Your task to perform on an android device: open app "Flipkart Online Shopping App" (install if not already installed) and go to login screen Image 0: 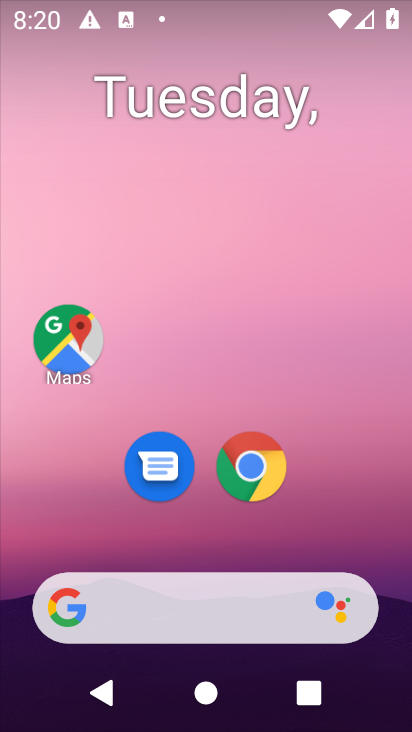
Step 0: drag from (186, 554) to (292, 11)
Your task to perform on an android device: open app "Flipkart Online Shopping App" (install if not already installed) and go to login screen Image 1: 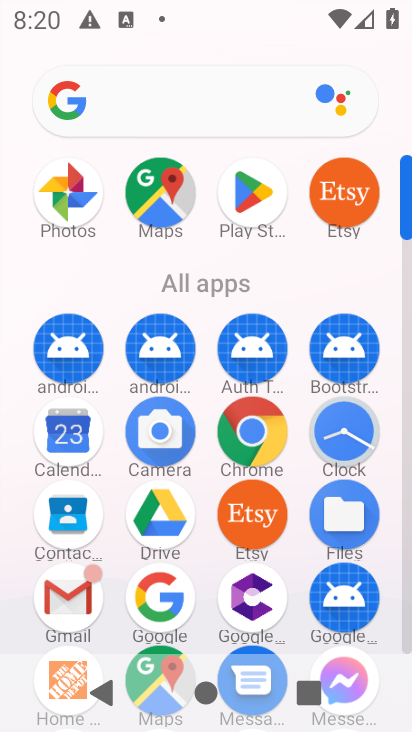
Step 1: click (272, 201)
Your task to perform on an android device: open app "Flipkart Online Shopping App" (install if not already installed) and go to login screen Image 2: 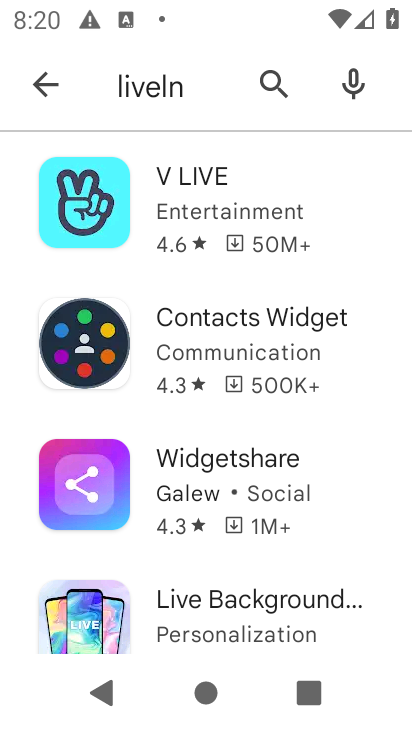
Step 2: click (277, 86)
Your task to perform on an android device: open app "Flipkart Online Shopping App" (install if not already installed) and go to login screen Image 3: 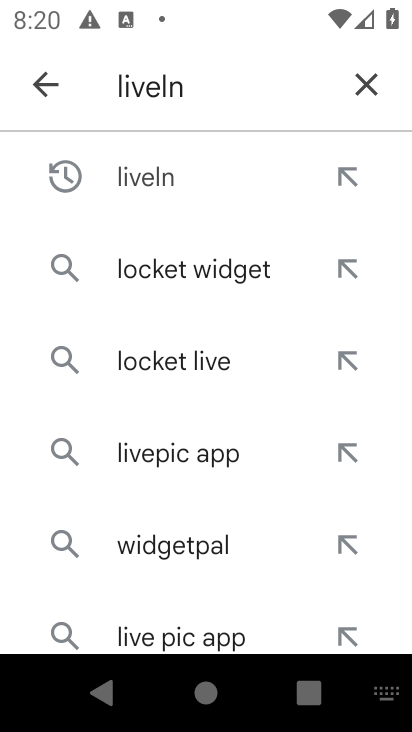
Step 3: click (362, 84)
Your task to perform on an android device: open app "Flipkart Online Shopping App" (install if not already installed) and go to login screen Image 4: 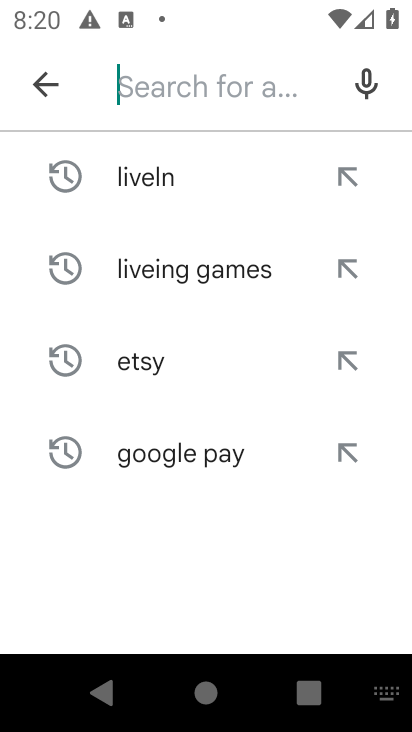
Step 4: click (108, 79)
Your task to perform on an android device: open app "Flipkart Online Shopping App" (install if not already installed) and go to login screen Image 5: 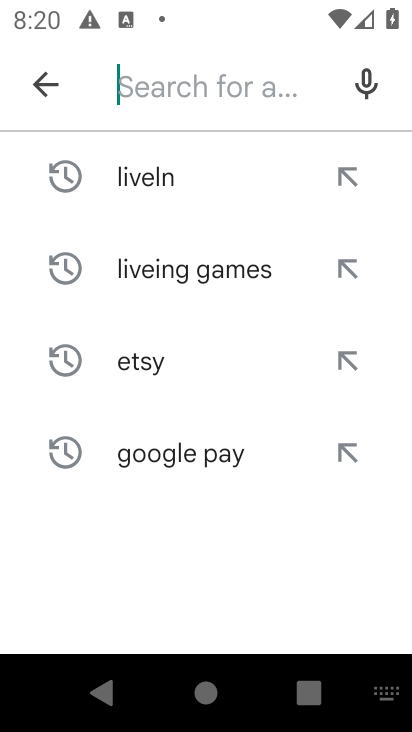
Step 5: type "Flipkart Online Shopping App"
Your task to perform on an android device: open app "Flipkart Online Shopping App" (install if not already installed) and go to login screen Image 6: 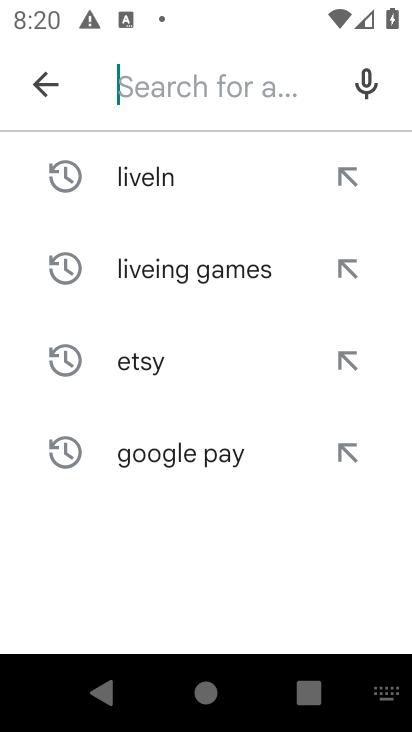
Step 6: click (251, 576)
Your task to perform on an android device: open app "Flipkart Online Shopping App" (install if not already installed) and go to login screen Image 7: 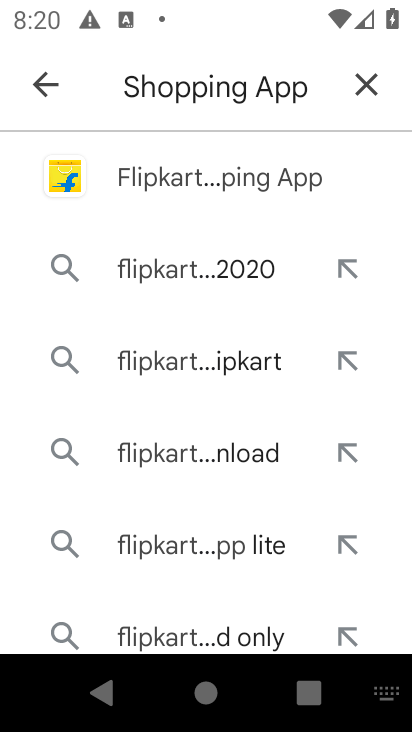
Step 7: click (239, 173)
Your task to perform on an android device: open app "Flipkart Online Shopping App" (install if not already installed) and go to login screen Image 8: 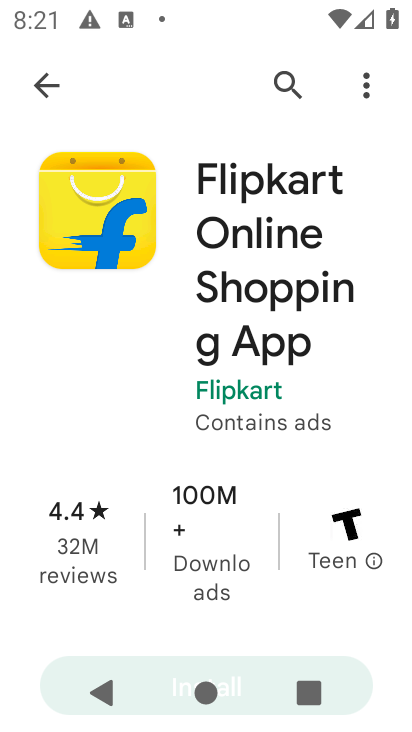
Step 8: drag from (280, 548) to (300, 87)
Your task to perform on an android device: open app "Flipkart Online Shopping App" (install if not already installed) and go to login screen Image 9: 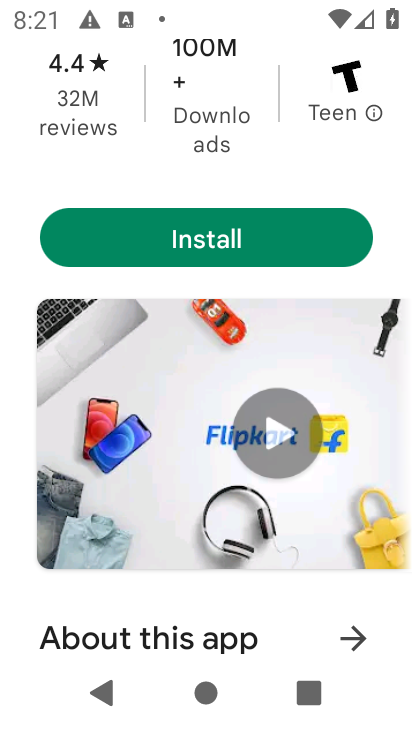
Step 9: click (171, 238)
Your task to perform on an android device: open app "Flipkart Online Shopping App" (install if not already installed) and go to login screen Image 10: 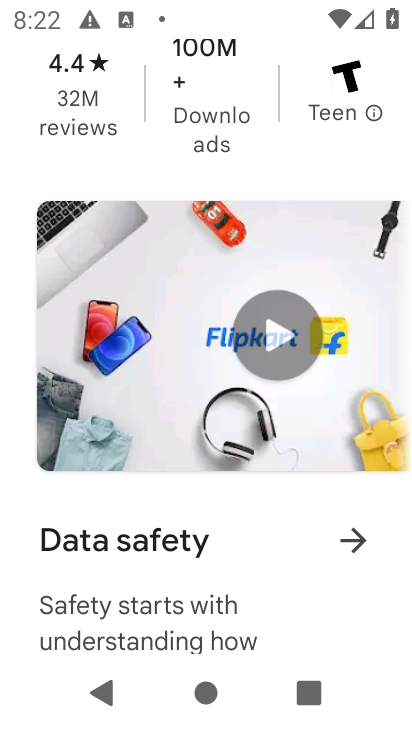
Step 10: drag from (259, 122) to (153, 674)
Your task to perform on an android device: open app "Flipkart Online Shopping App" (install if not already installed) and go to login screen Image 11: 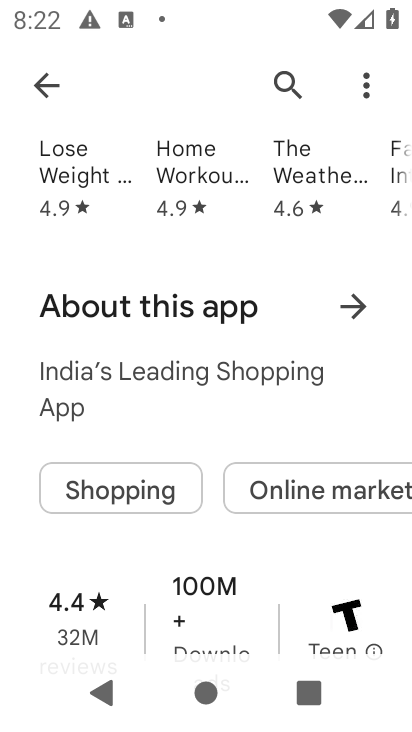
Step 11: drag from (178, 176) to (178, 570)
Your task to perform on an android device: open app "Flipkart Online Shopping App" (install if not already installed) and go to login screen Image 12: 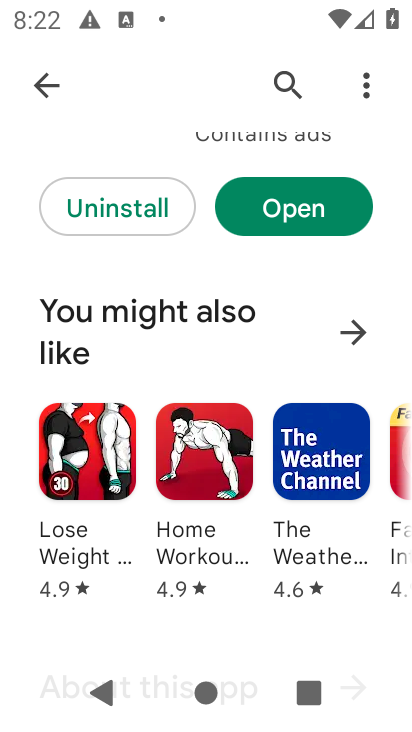
Step 12: click (305, 214)
Your task to perform on an android device: open app "Flipkart Online Shopping App" (install if not already installed) and go to login screen Image 13: 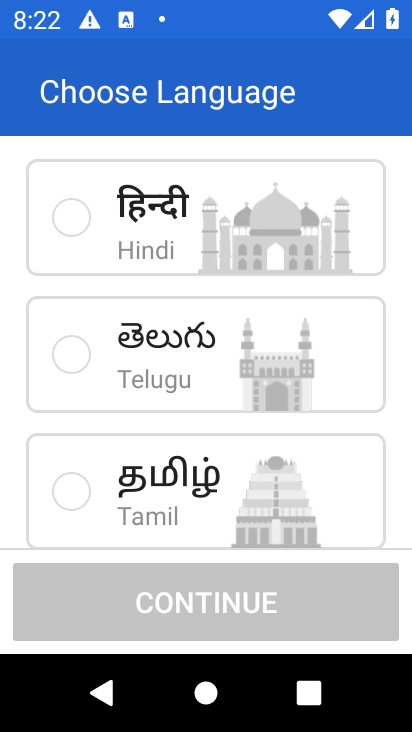
Step 13: drag from (158, 444) to (241, 125)
Your task to perform on an android device: open app "Flipkart Online Shopping App" (install if not already installed) and go to login screen Image 14: 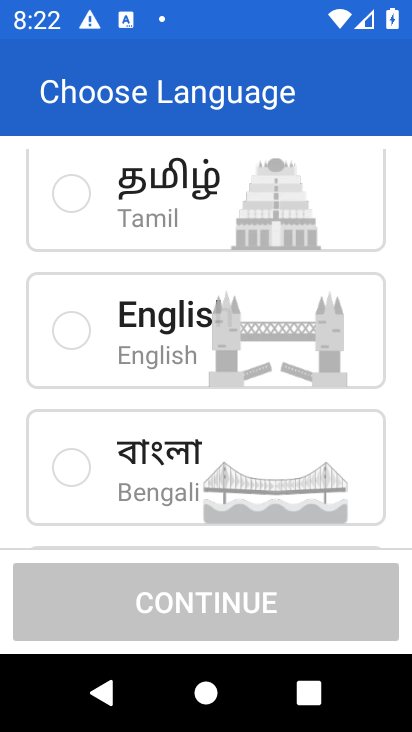
Step 14: click (63, 323)
Your task to perform on an android device: open app "Flipkart Online Shopping App" (install if not already installed) and go to login screen Image 15: 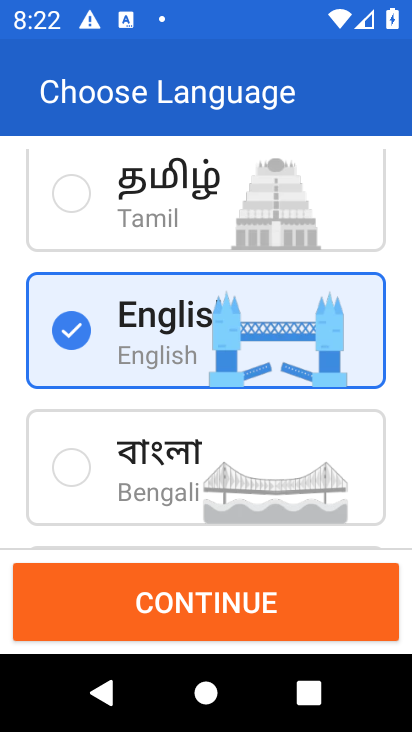
Step 15: click (206, 582)
Your task to perform on an android device: open app "Flipkart Online Shopping App" (install if not already installed) and go to login screen Image 16: 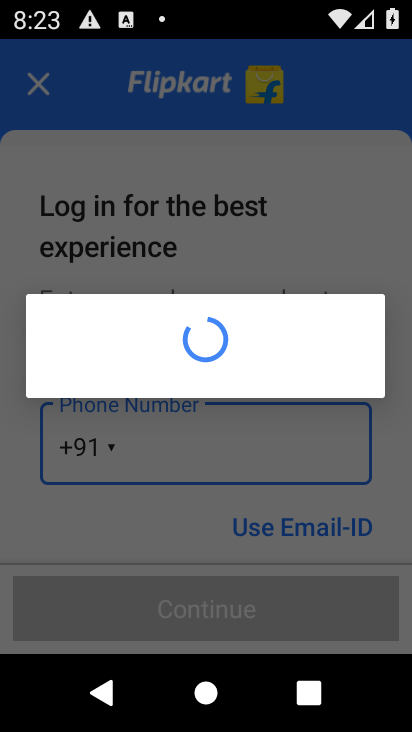
Step 16: task complete